Your task to perform on an android device: turn off smart reply in the gmail app Image 0: 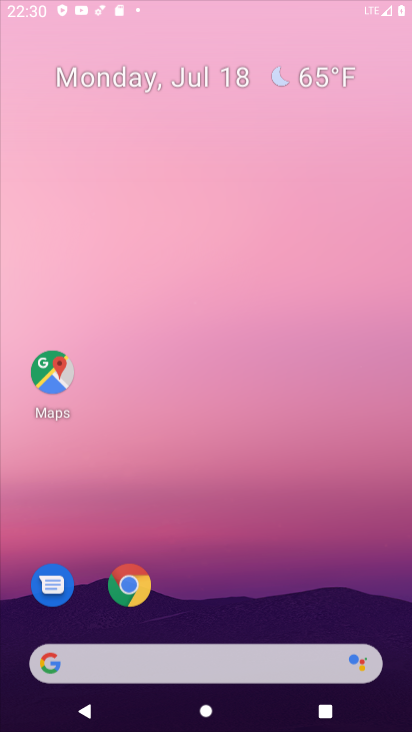
Step 0: press home button
Your task to perform on an android device: turn off smart reply in the gmail app Image 1: 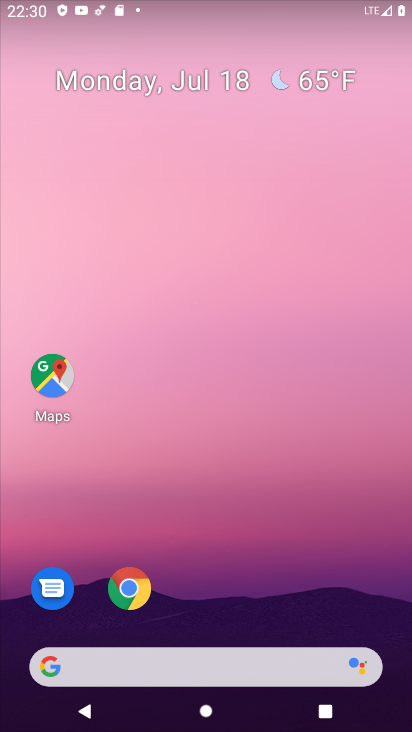
Step 1: drag from (313, 589) to (311, 246)
Your task to perform on an android device: turn off smart reply in the gmail app Image 2: 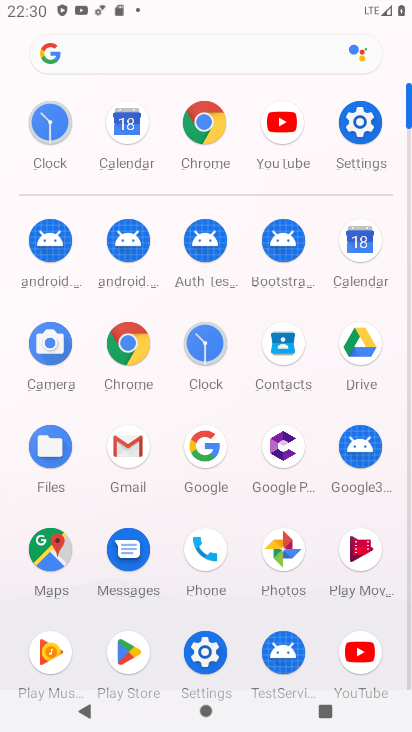
Step 2: click (131, 442)
Your task to perform on an android device: turn off smart reply in the gmail app Image 3: 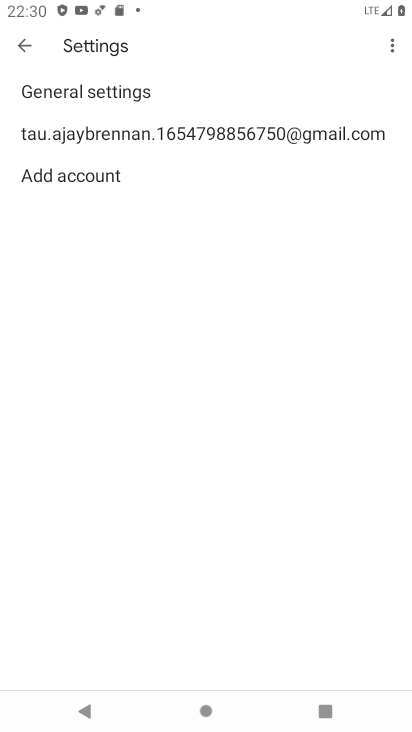
Step 3: click (74, 134)
Your task to perform on an android device: turn off smart reply in the gmail app Image 4: 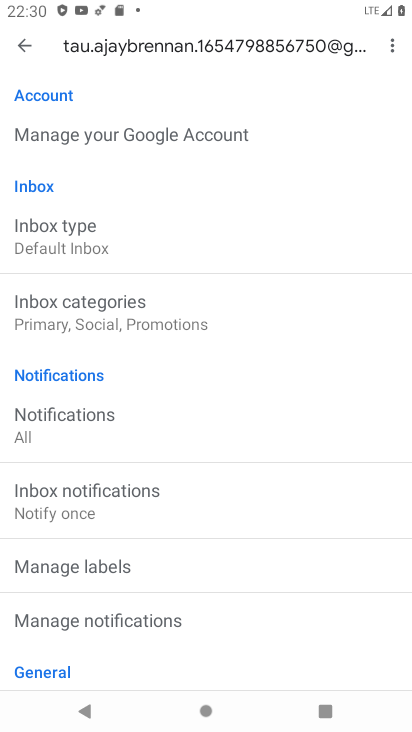
Step 4: task complete